Your task to perform on an android device: Turn on the flashlight Image 0: 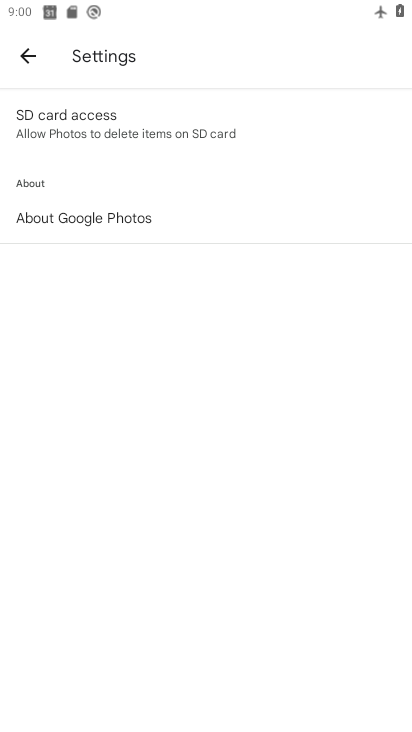
Step 0: drag from (176, 567) to (209, 289)
Your task to perform on an android device: Turn on the flashlight Image 1: 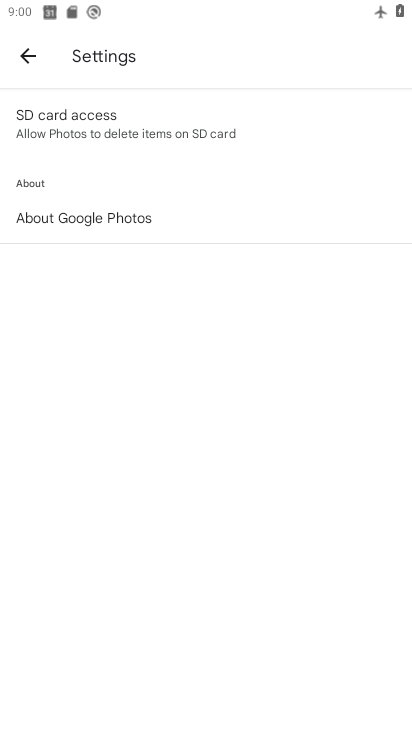
Step 1: click (31, 50)
Your task to perform on an android device: Turn on the flashlight Image 2: 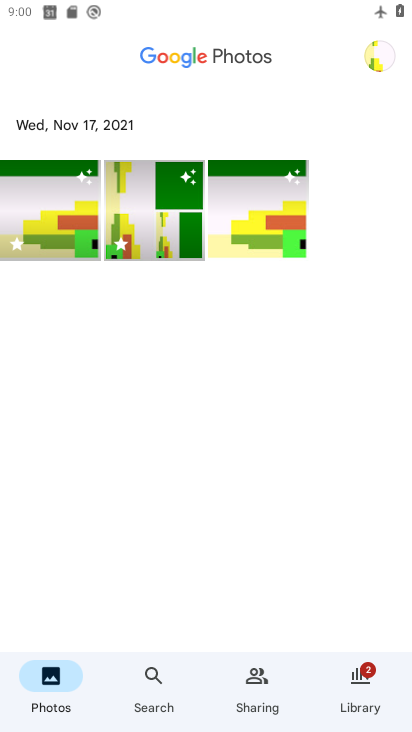
Step 2: press home button
Your task to perform on an android device: Turn on the flashlight Image 3: 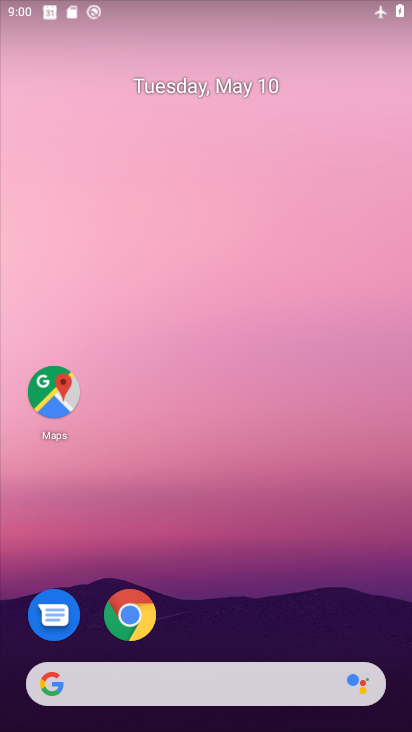
Step 3: drag from (224, 599) to (317, 59)
Your task to perform on an android device: Turn on the flashlight Image 4: 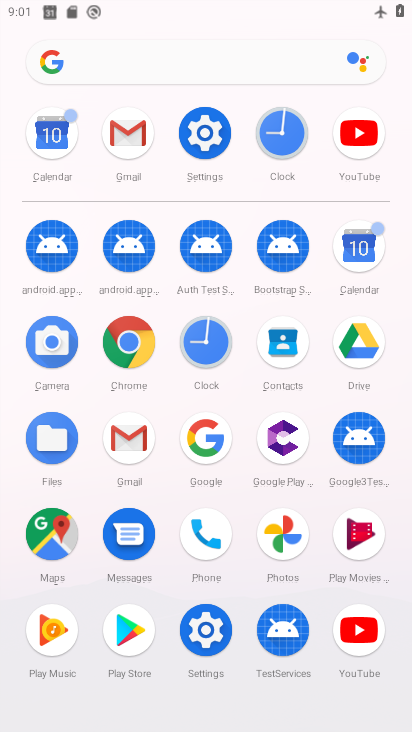
Step 4: click (219, 139)
Your task to perform on an android device: Turn on the flashlight Image 5: 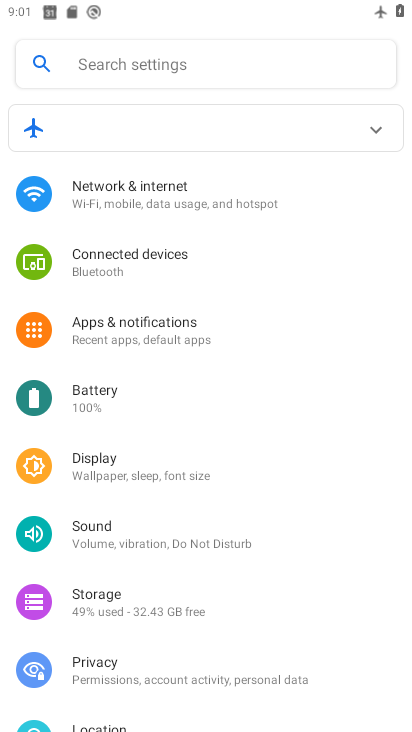
Step 5: click (111, 71)
Your task to perform on an android device: Turn on the flashlight Image 6: 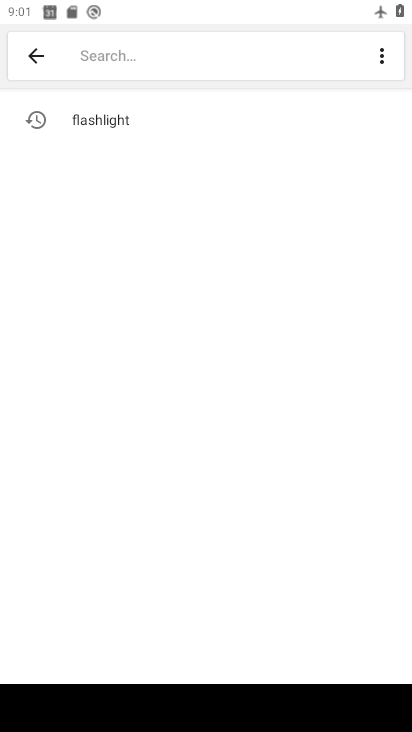
Step 6: click (105, 130)
Your task to perform on an android device: Turn on the flashlight Image 7: 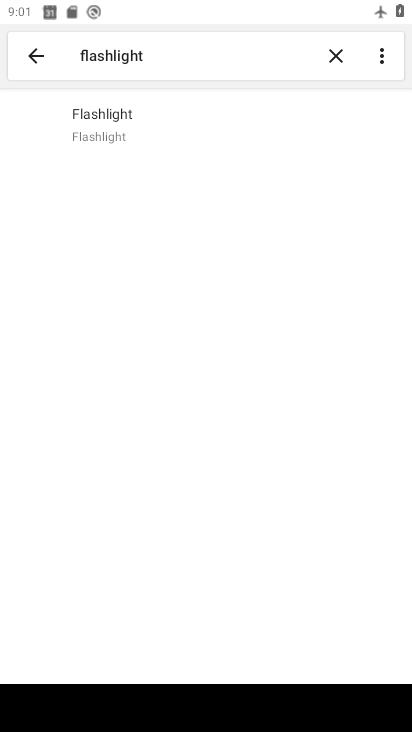
Step 7: task complete